Your task to perform on an android device: Open maps Image 0: 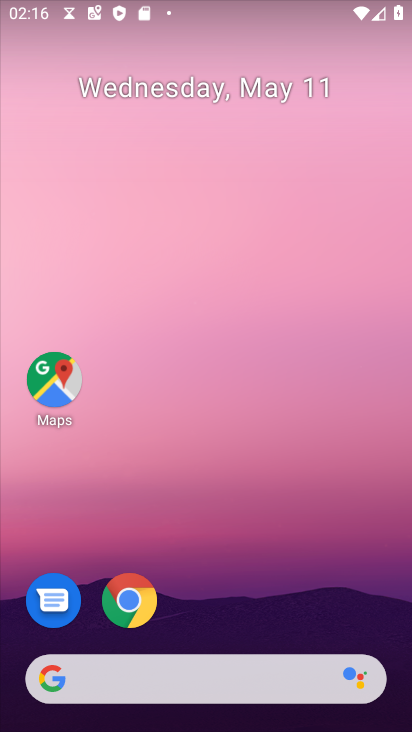
Step 0: drag from (285, 631) to (311, 306)
Your task to perform on an android device: Open maps Image 1: 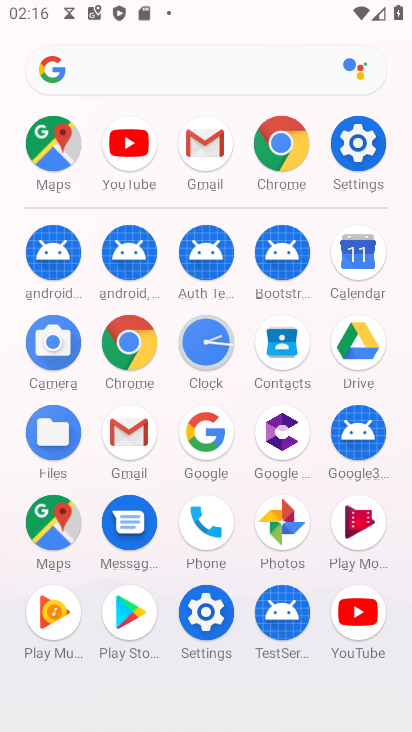
Step 1: click (66, 144)
Your task to perform on an android device: Open maps Image 2: 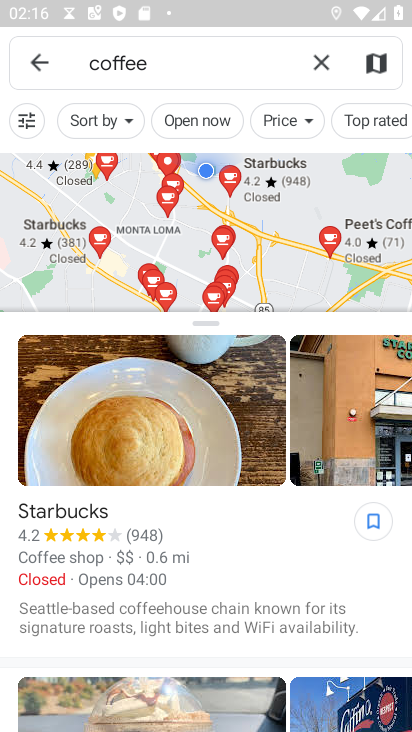
Step 2: click (310, 59)
Your task to perform on an android device: Open maps Image 3: 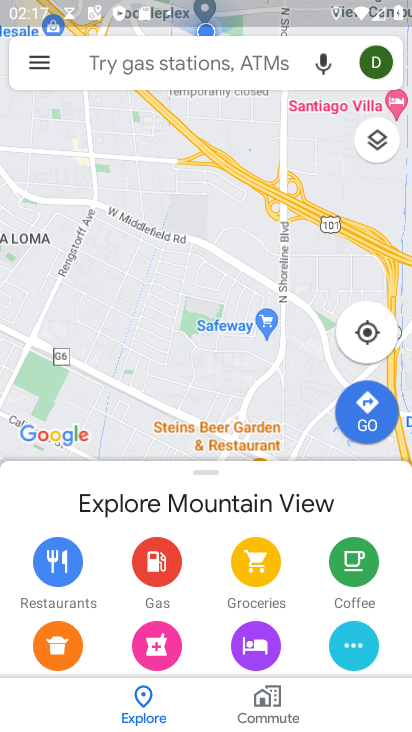
Step 3: task complete